Your task to perform on an android device: Check the weather Image 0: 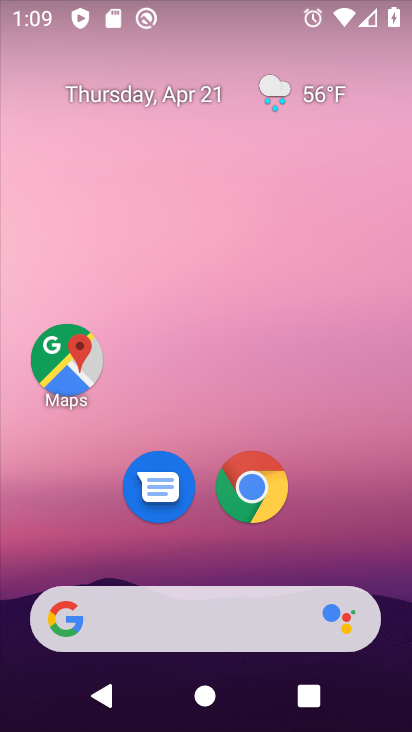
Step 0: click (269, 481)
Your task to perform on an android device: Check the weather Image 1: 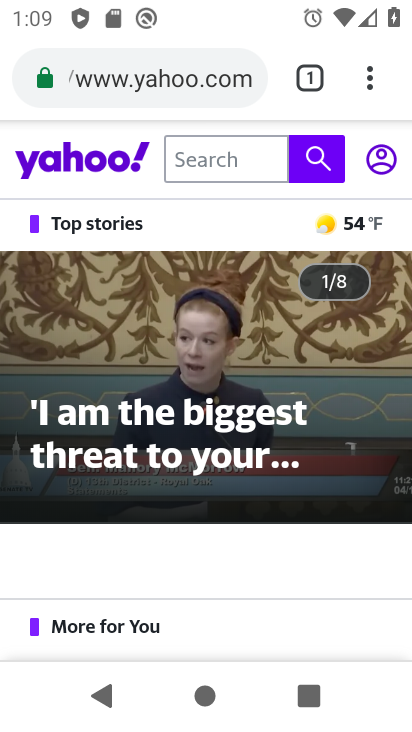
Step 1: click (303, 81)
Your task to perform on an android device: Check the weather Image 2: 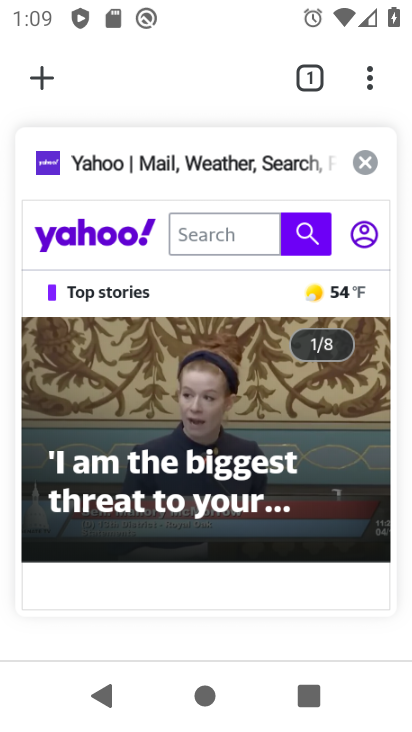
Step 2: click (45, 78)
Your task to perform on an android device: Check the weather Image 3: 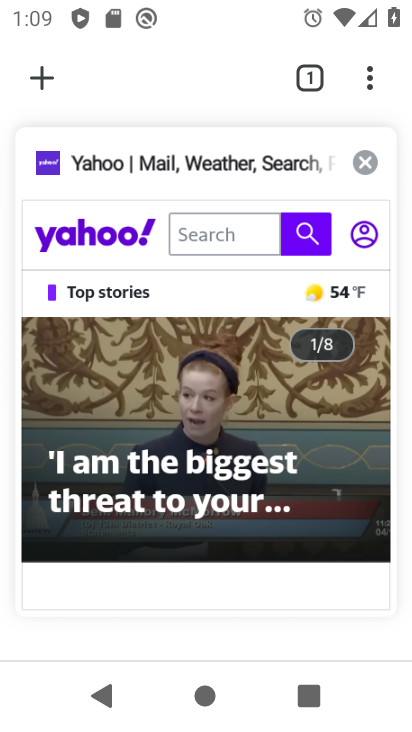
Step 3: click (45, 78)
Your task to perform on an android device: Check the weather Image 4: 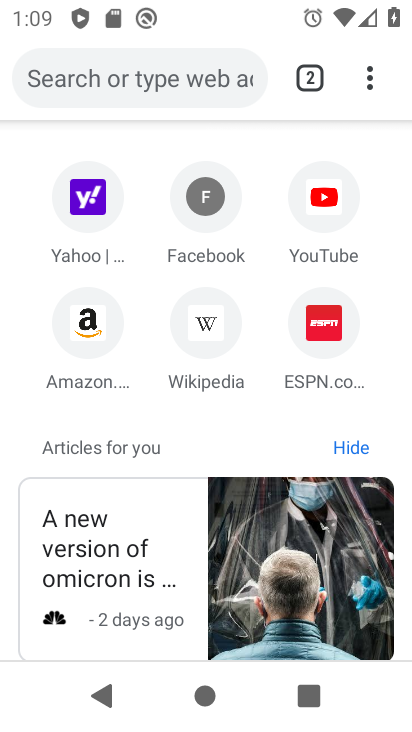
Step 4: click (141, 90)
Your task to perform on an android device: Check the weather Image 5: 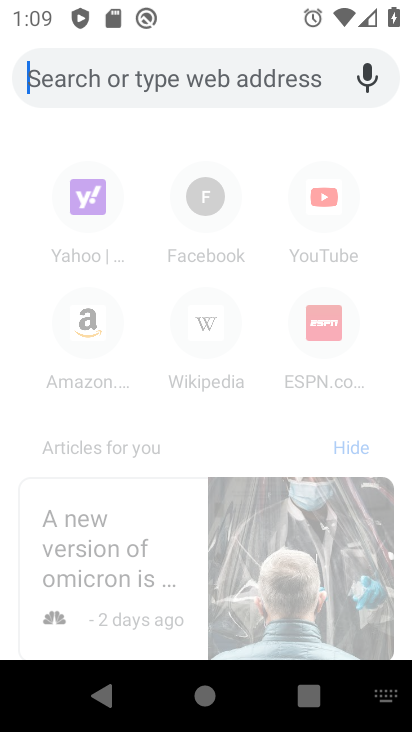
Step 5: type "weather"
Your task to perform on an android device: Check the weather Image 6: 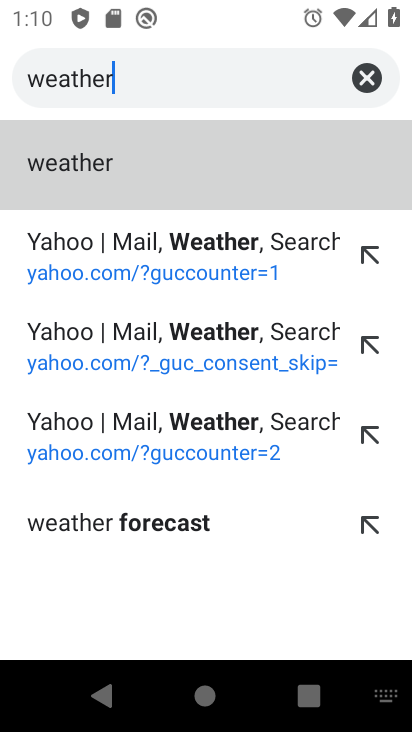
Step 6: click (91, 166)
Your task to perform on an android device: Check the weather Image 7: 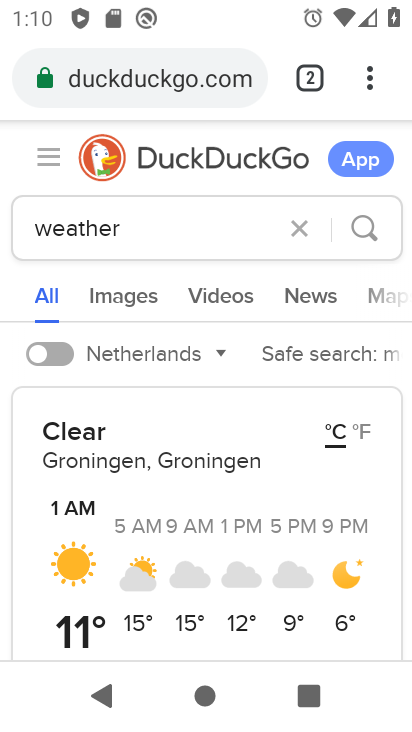
Step 7: task complete